Your task to perform on an android device: change the clock display to analog Image 0: 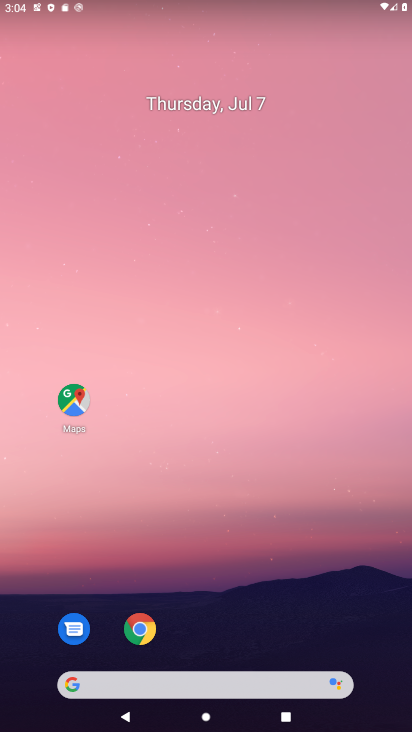
Step 0: drag from (117, 632) to (160, 257)
Your task to perform on an android device: change the clock display to analog Image 1: 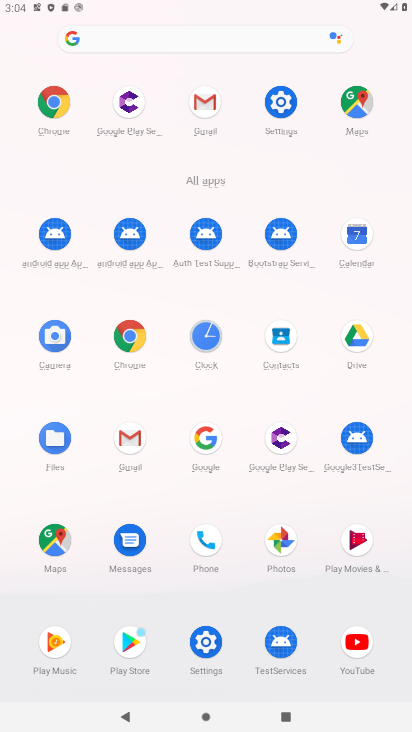
Step 1: click (205, 339)
Your task to perform on an android device: change the clock display to analog Image 2: 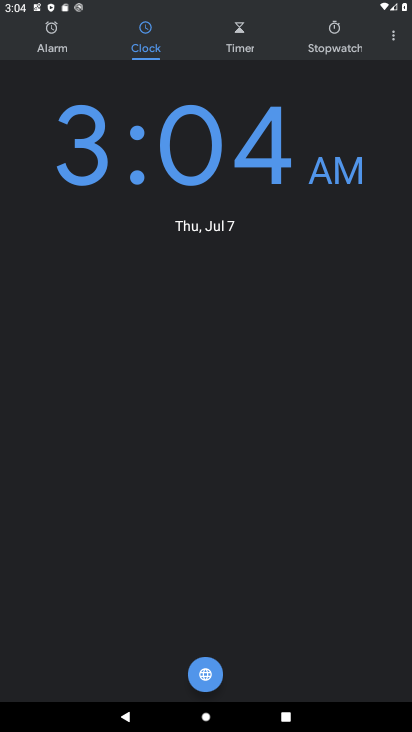
Step 2: click (391, 45)
Your task to perform on an android device: change the clock display to analog Image 3: 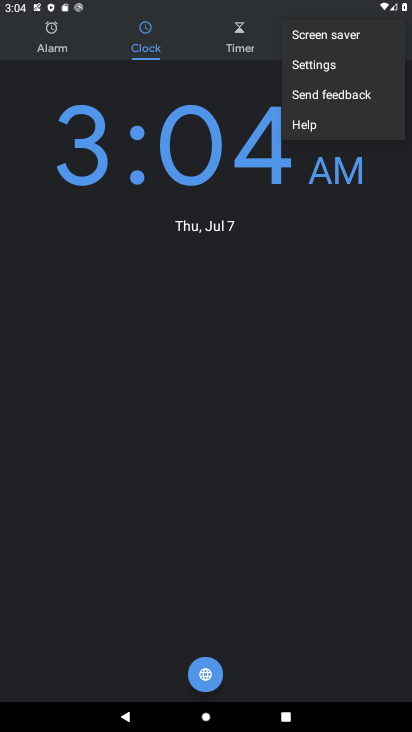
Step 3: click (308, 66)
Your task to perform on an android device: change the clock display to analog Image 4: 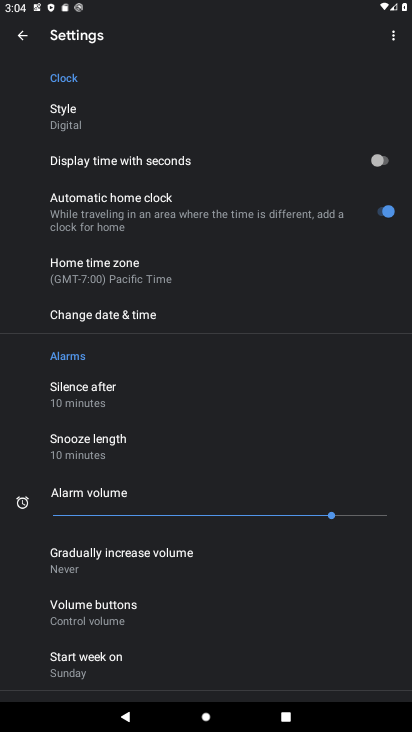
Step 4: click (74, 127)
Your task to perform on an android device: change the clock display to analog Image 5: 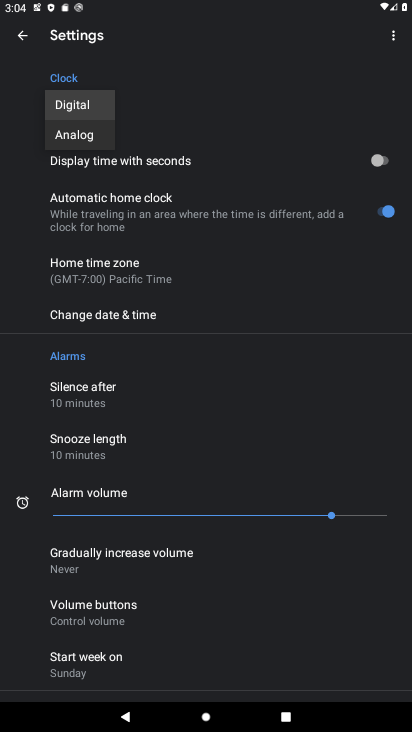
Step 5: click (83, 140)
Your task to perform on an android device: change the clock display to analog Image 6: 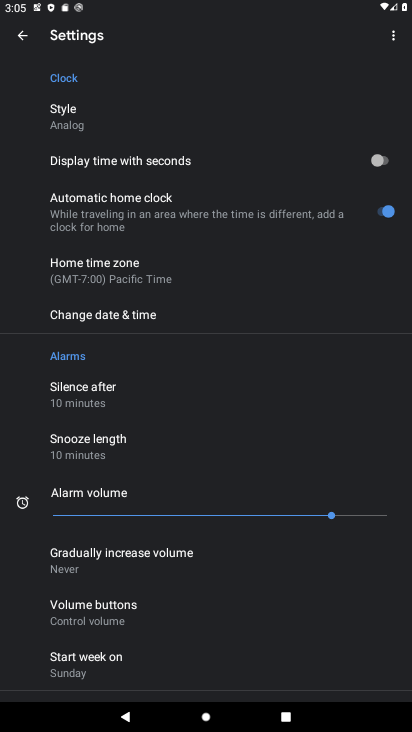
Step 6: task complete